Your task to perform on an android device: What is the capital of Sweden? Image 0: 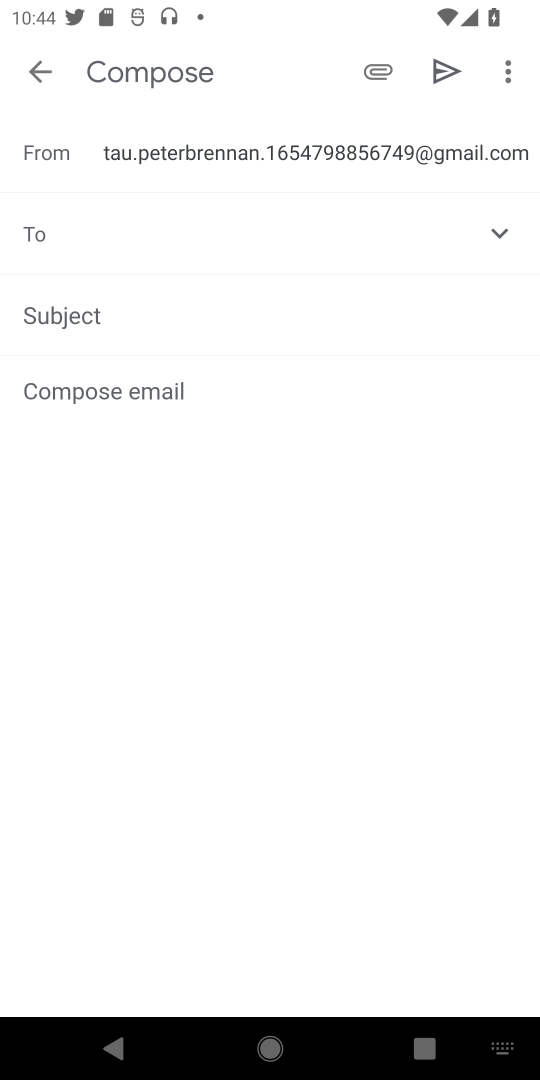
Step 0: press home button
Your task to perform on an android device: What is the capital of Sweden? Image 1: 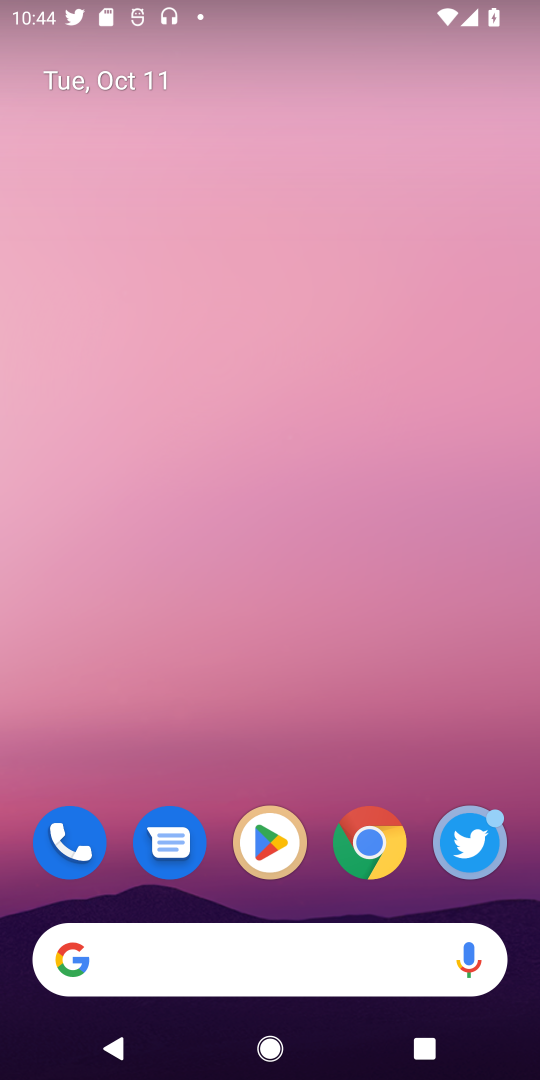
Step 1: click (387, 834)
Your task to perform on an android device: What is the capital of Sweden? Image 2: 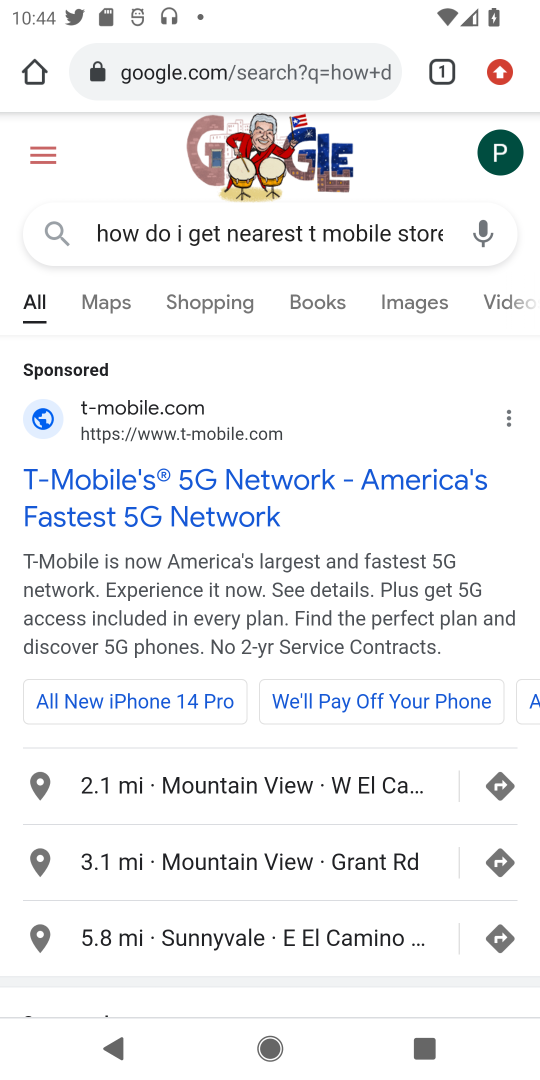
Step 2: click (249, 53)
Your task to perform on an android device: What is the capital of Sweden? Image 3: 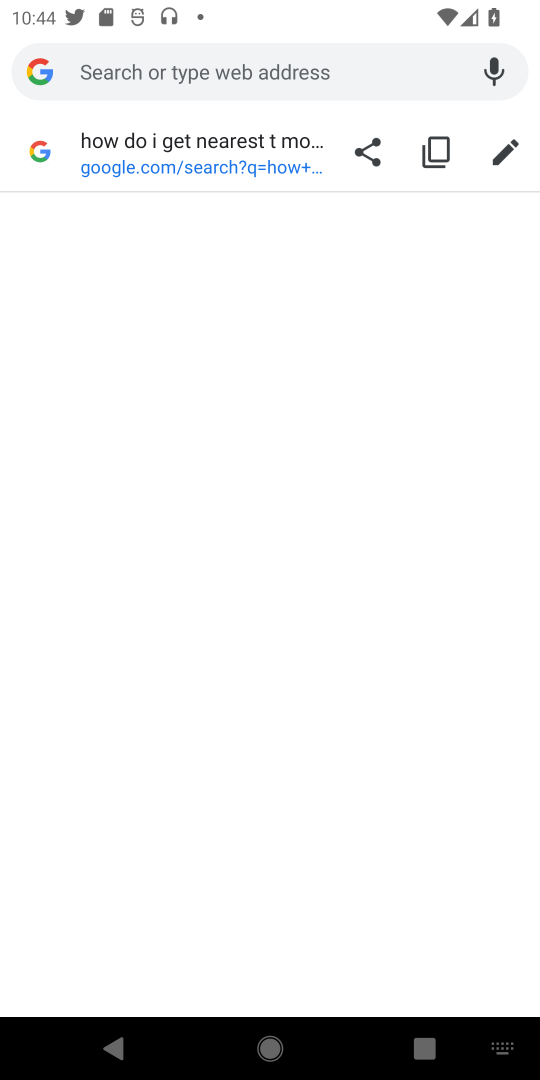
Step 3: type "capital of seweden"
Your task to perform on an android device: What is the capital of Sweden? Image 4: 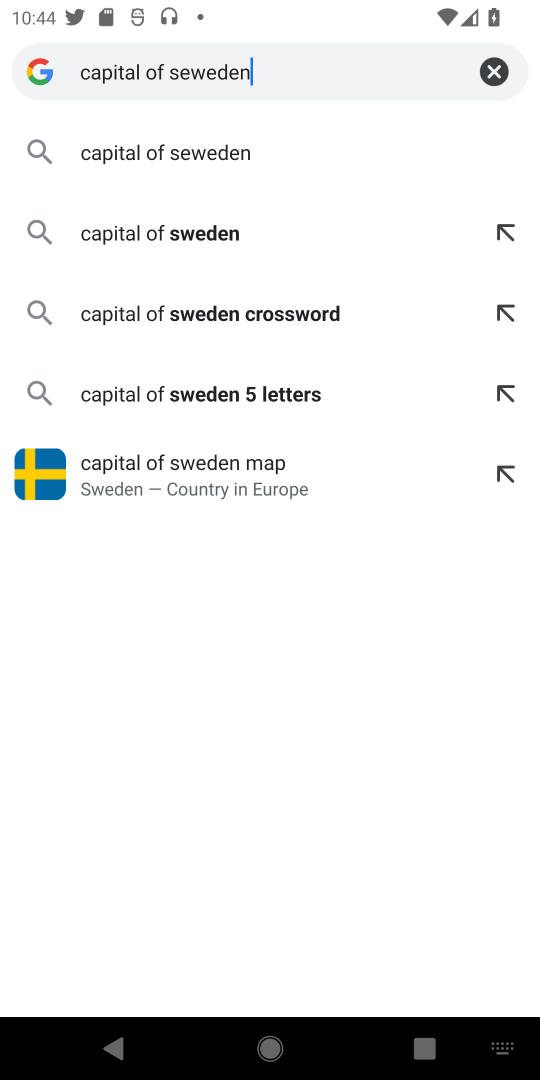
Step 4: click (228, 149)
Your task to perform on an android device: What is the capital of Sweden? Image 5: 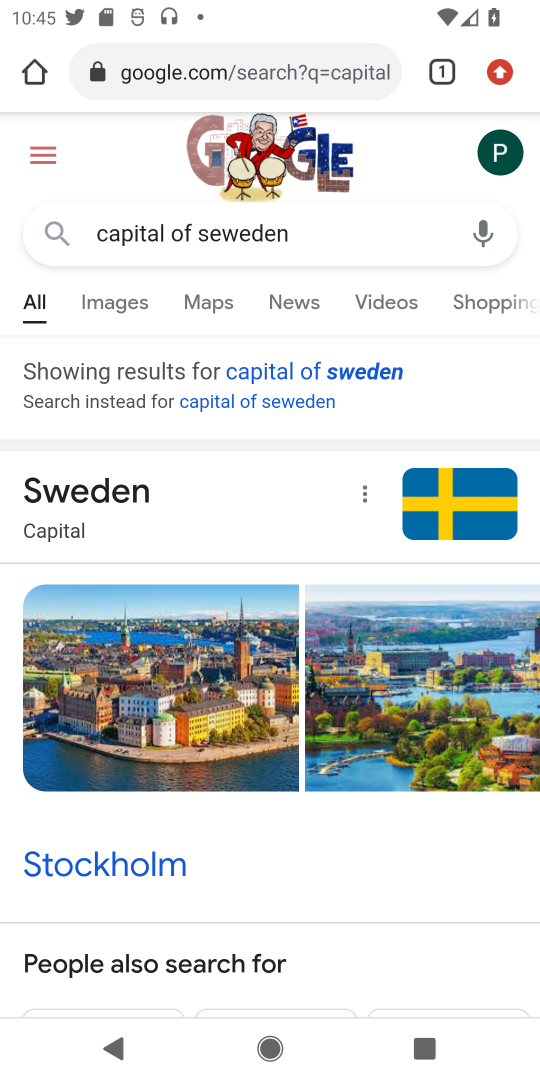
Step 5: task complete